Your task to perform on an android device: What's the weather going to be this weekend? Image 0: 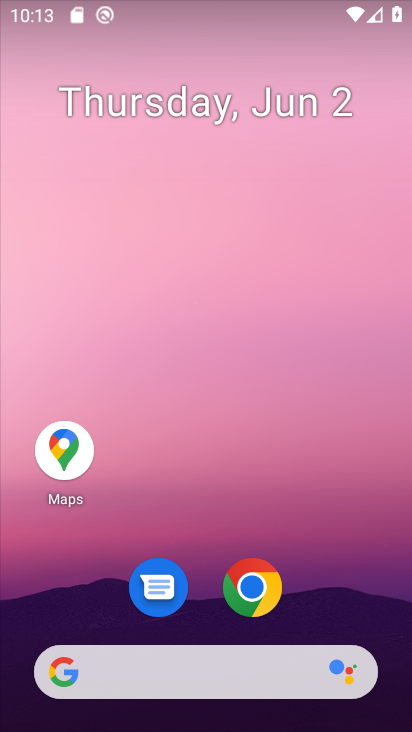
Step 0: drag from (331, 540) to (295, 135)
Your task to perform on an android device: What's the weather going to be this weekend? Image 1: 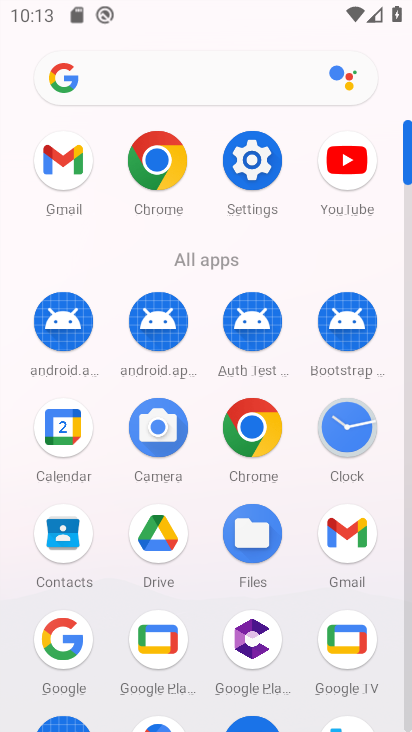
Step 1: press home button
Your task to perform on an android device: What's the weather going to be this weekend? Image 2: 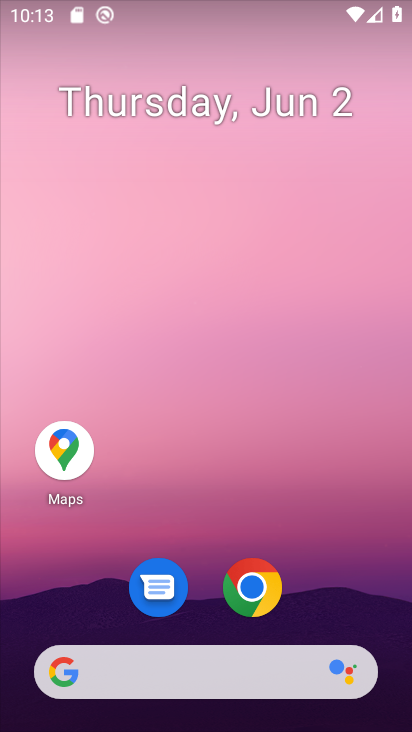
Step 2: drag from (33, 221) to (375, 242)
Your task to perform on an android device: What's the weather going to be this weekend? Image 3: 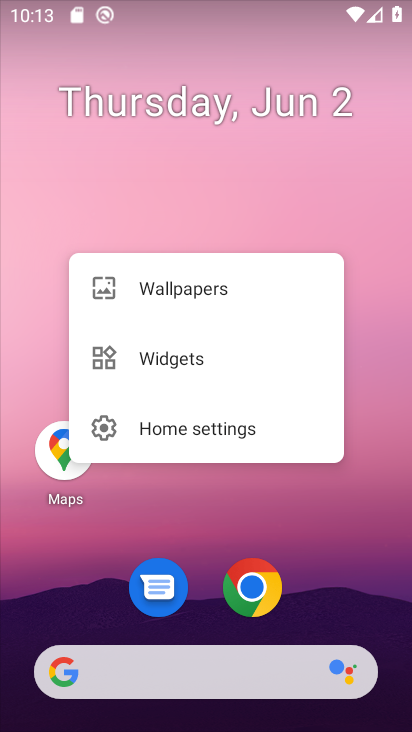
Step 3: drag from (5, 200) to (402, 270)
Your task to perform on an android device: What's the weather going to be this weekend? Image 4: 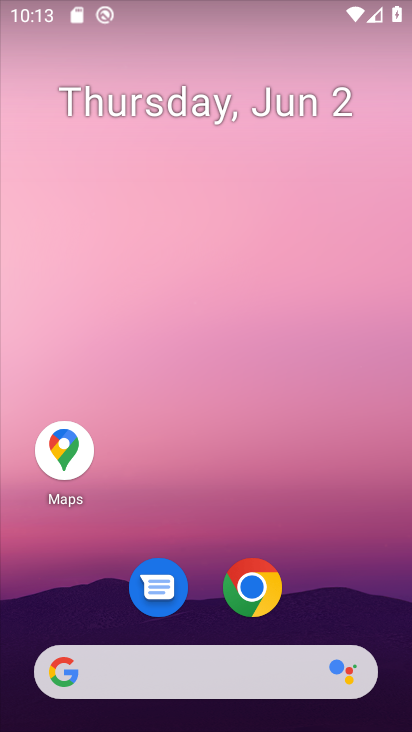
Step 4: drag from (0, 256) to (410, 274)
Your task to perform on an android device: What's the weather going to be this weekend? Image 5: 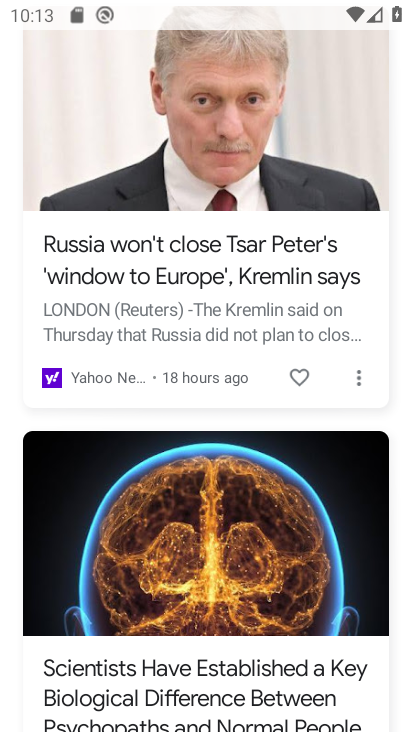
Step 5: drag from (276, 219) to (237, 591)
Your task to perform on an android device: What's the weather going to be this weekend? Image 6: 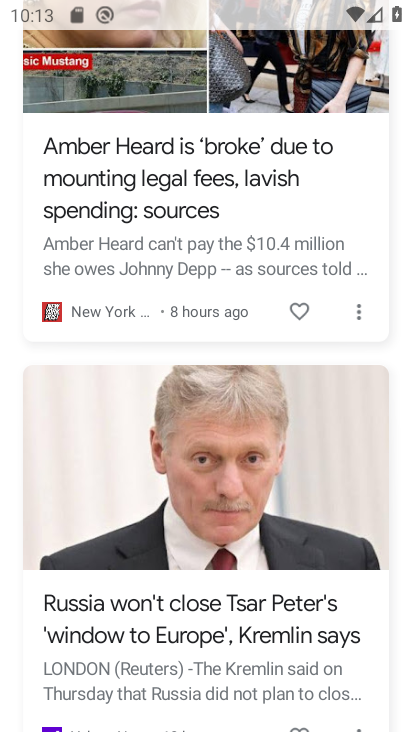
Step 6: drag from (240, 100) to (193, 710)
Your task to perform on an android device: What's the weather going to be this weekend? Image 7: 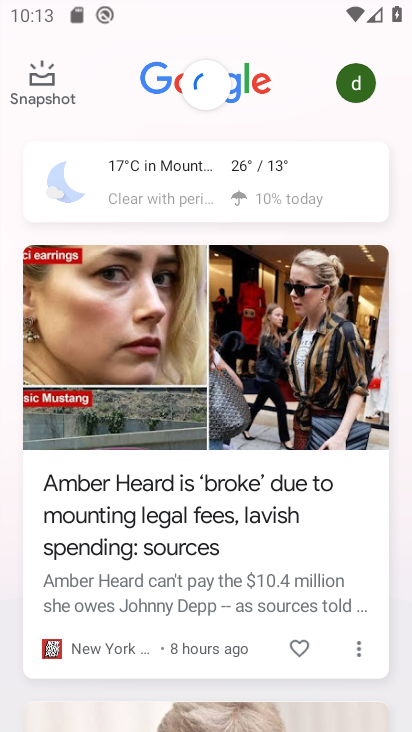
Step 7: click (250, 185)
Your task to perform on an android device: What's the weather going to be this weekend? Image 8: 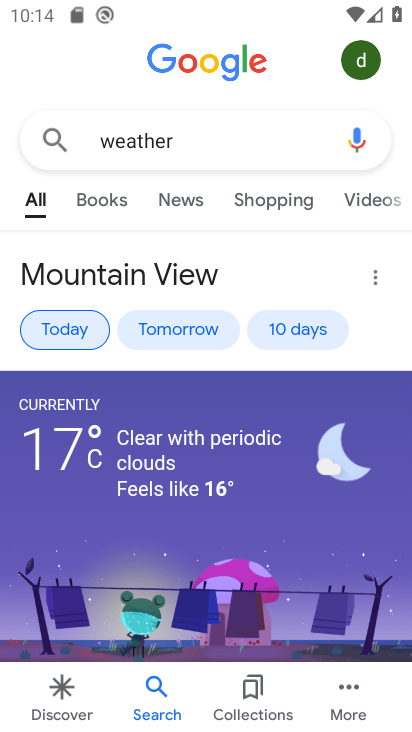
Step 8: click (271, 323)
Your task to perform on an android device: What's the weather going to be this weekend? Image 9: 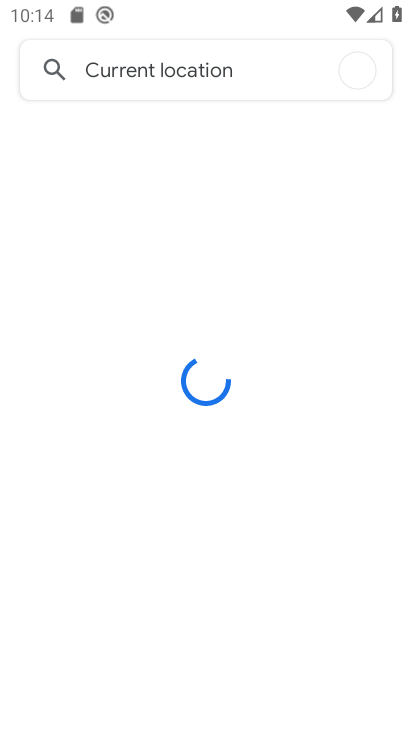
Step 9: click (272, 326)
Your task to perform on an android device: What's the weather going to be this weekend? Image 10: 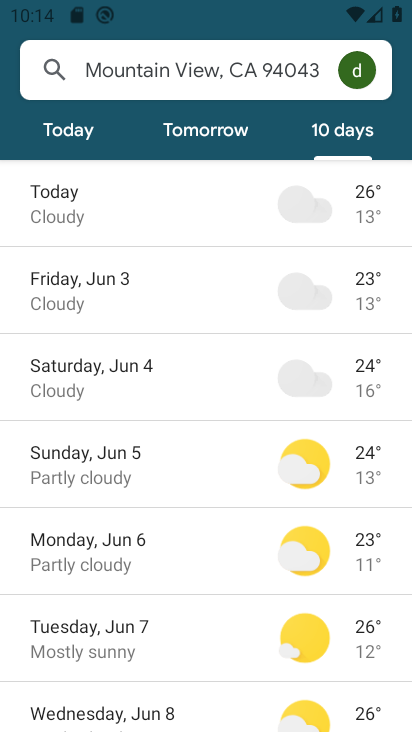
Step 10: task complete